Your task to perform on an android device: Empty the shopping cart on ebay.com. Image 0: 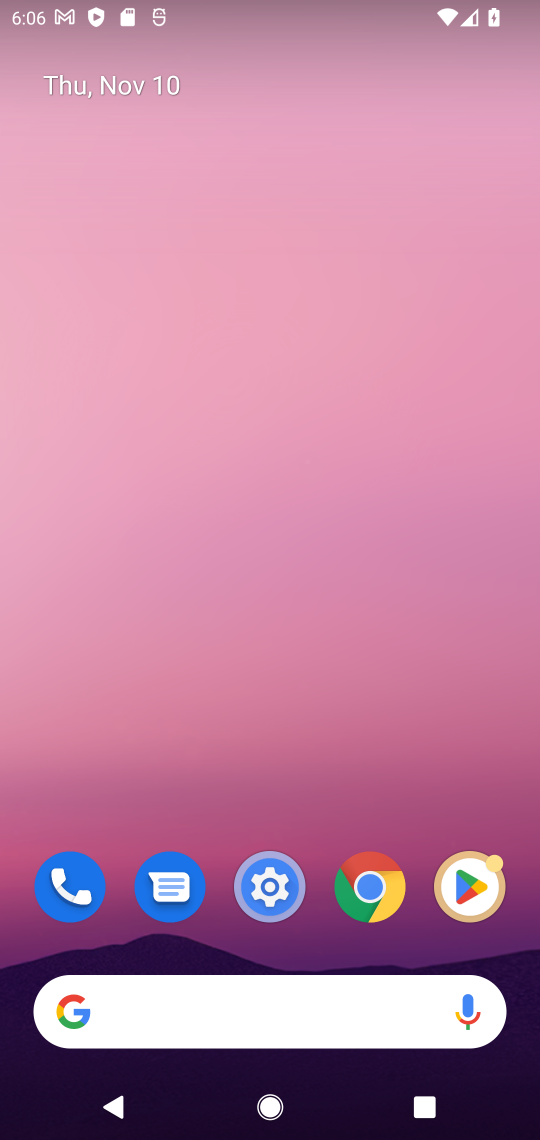
Step 0: click (162, 998)
Your task to perform on an android device: Empty the shopping cart on ebay.com. Image 1: 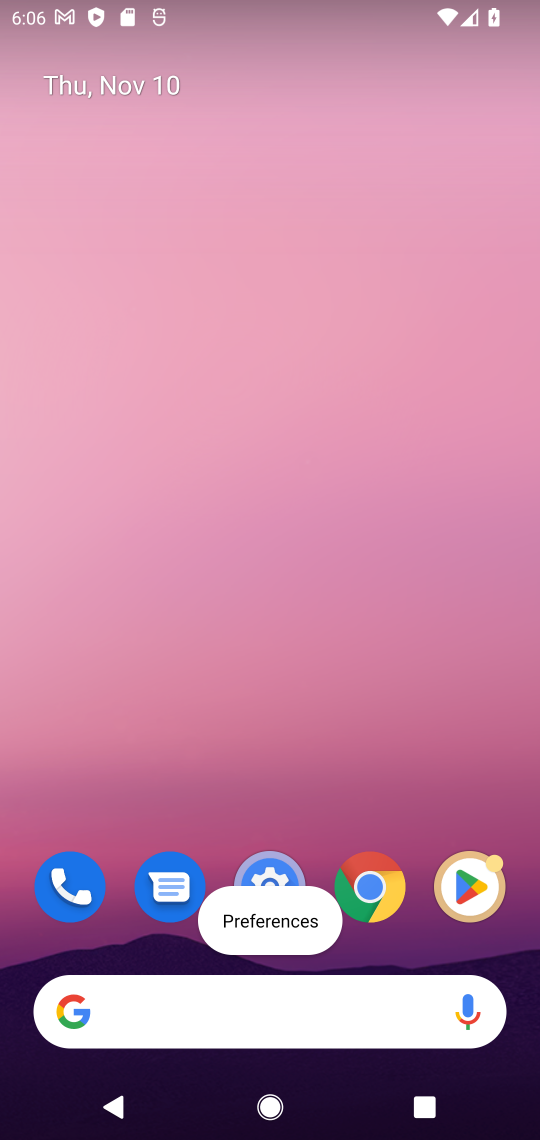
Step 1: click (85, 1012)
Your task to perform on an android device: Empty the shopping cart on ebay.com. Image 2: 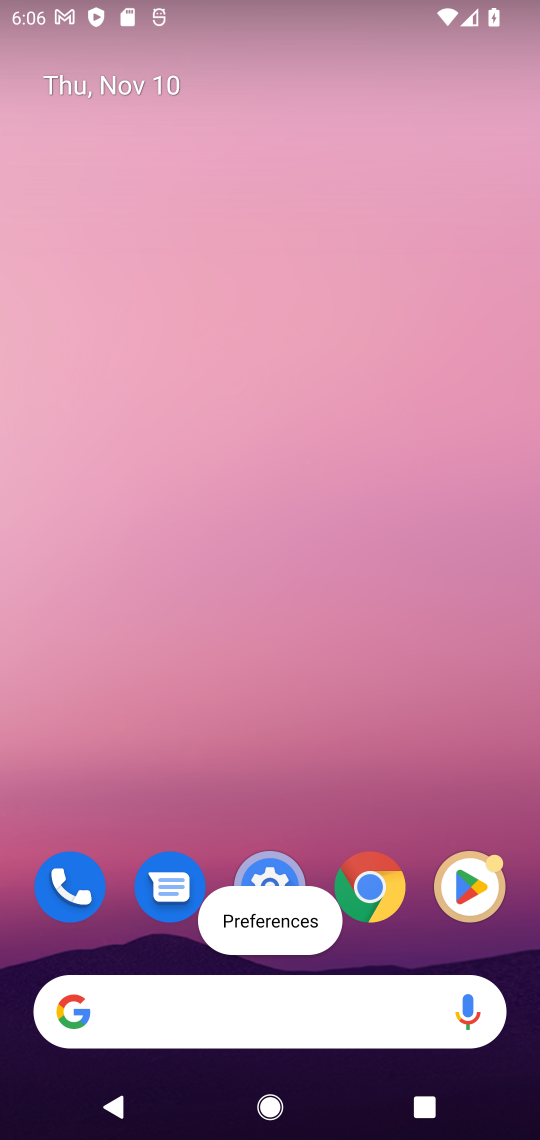
Step 2: click (77, 1007)
Your task to perform on an android device: Empty the shopping cart on ebay.com. Image 3: 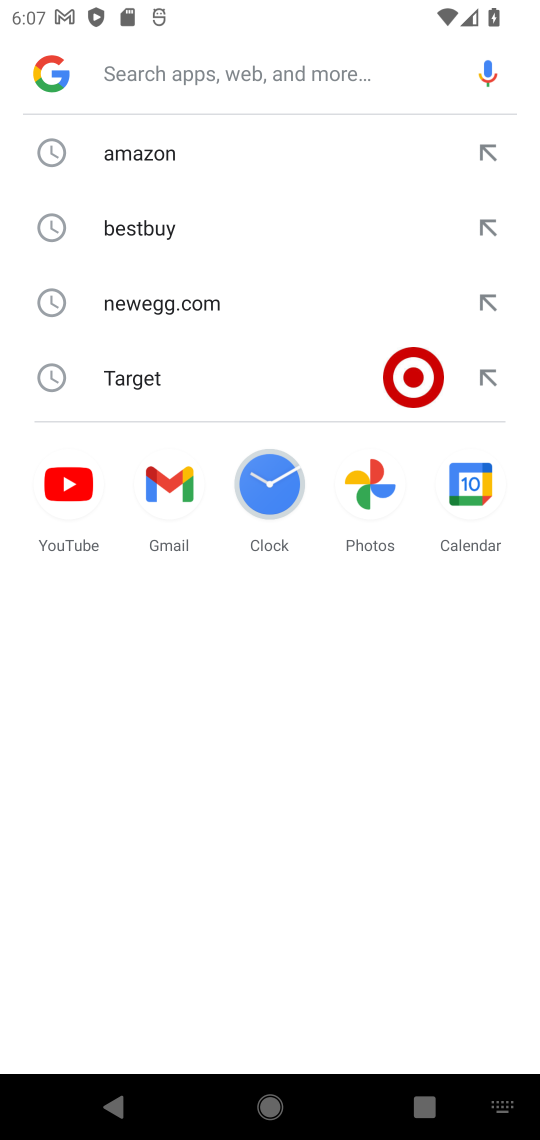
Step 3: type "ebay"
Your task to perform on an android device: Empty the shopping cart on ebay.com. Image 4: 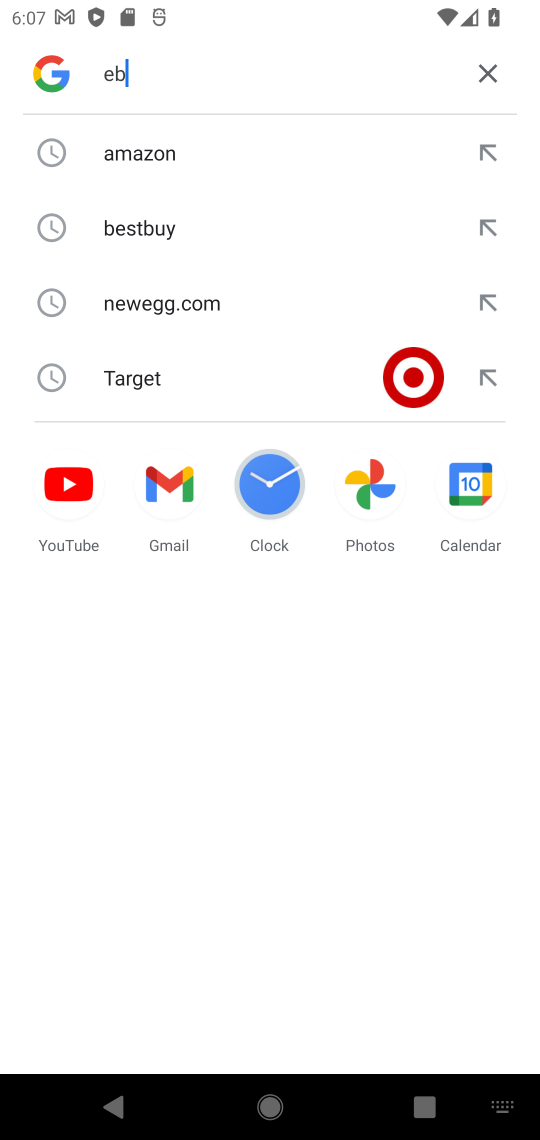
Step 4: type ""
Your task to perform on an android device: Empty the shopping cart on ebay.com. Image 5: 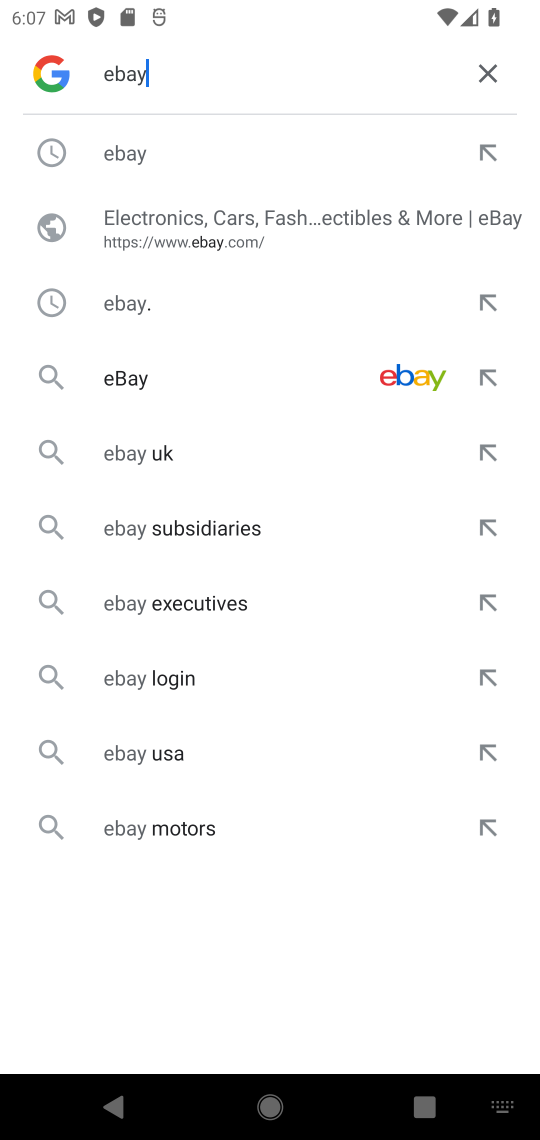
Step 5: click (117, 384)
Your task to perform on an android device: Empty the shopping cart on ebay.com. Image 6: 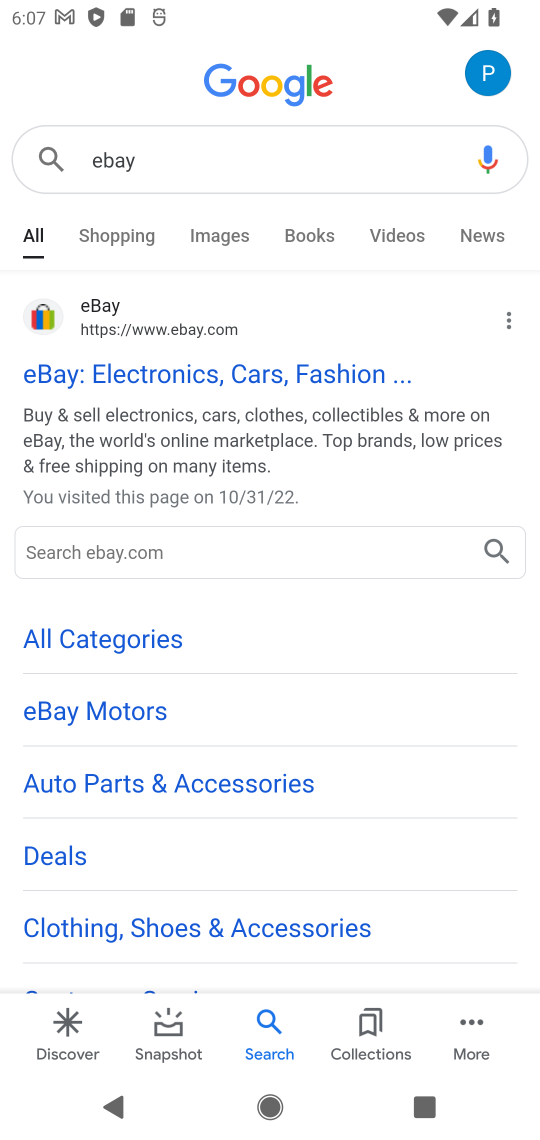
Step 6: click (87, 302)
Your task to perform on an android device: Empty the shopping cart on ebay.com. Image 7: 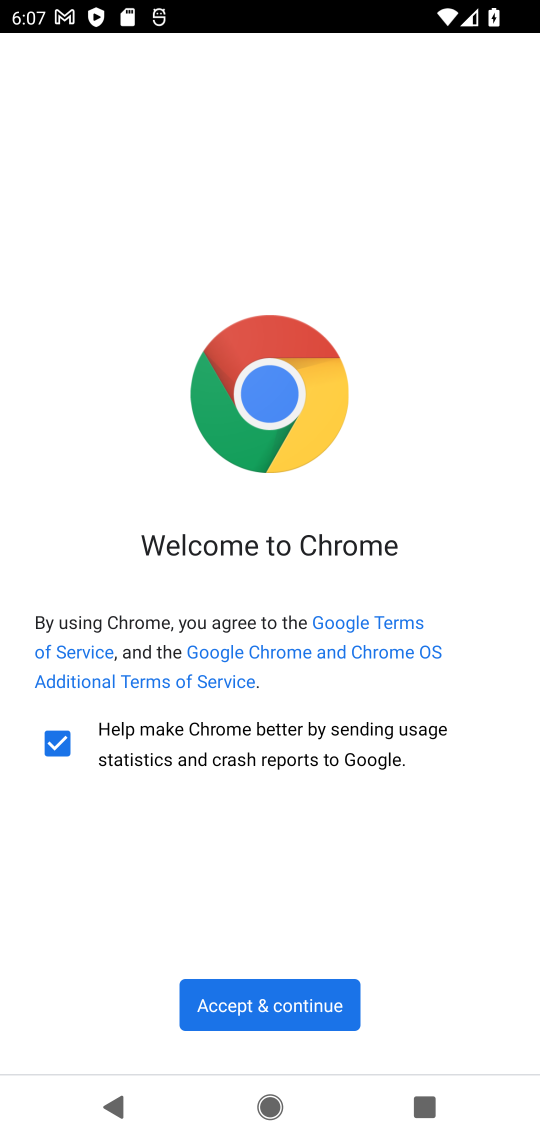
Step 7: click (270, 993)
Your task to perform on an android device: Empty the shopping cart on ebay.com. Image 8: 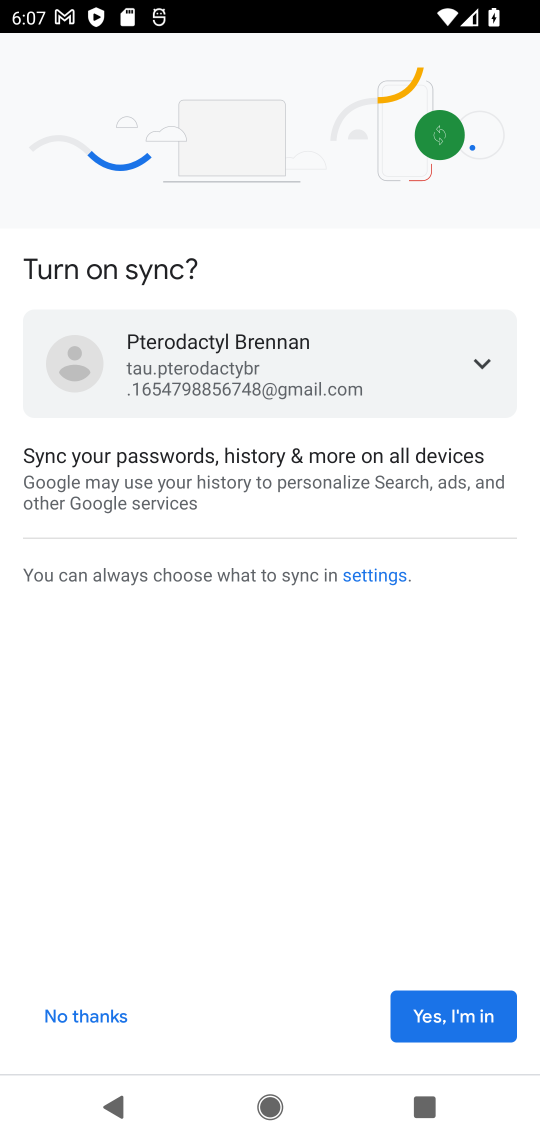
Step 8: click (418, 1020)
Your task to perform on an android device: Empty the shopping cart on ebay.com. Image 9: 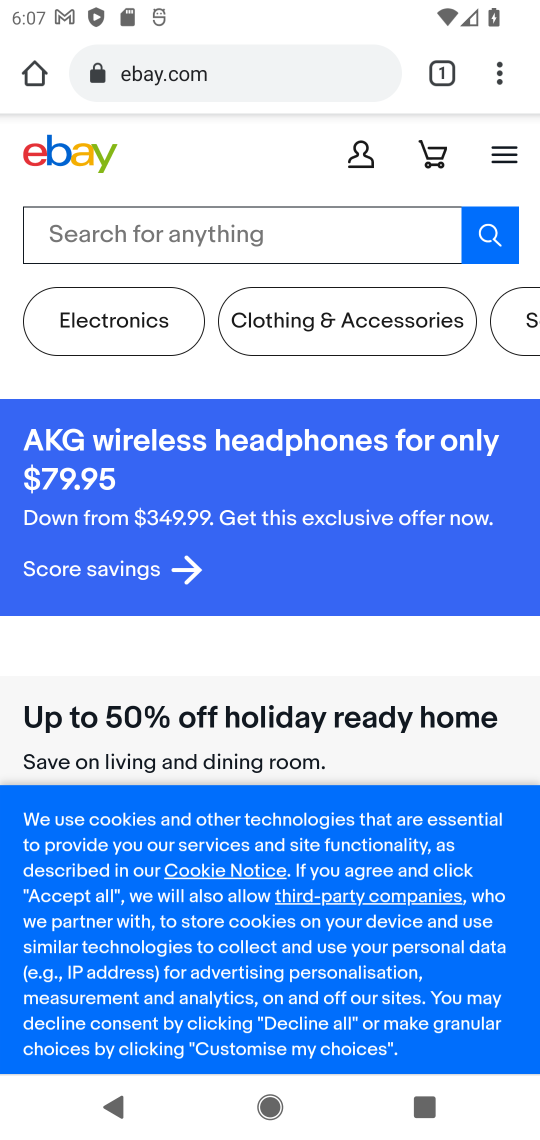
Step 9: click (435, 150)
Your task to perform on an android device: Empty the shopping cart on ebay.com. Image 10: 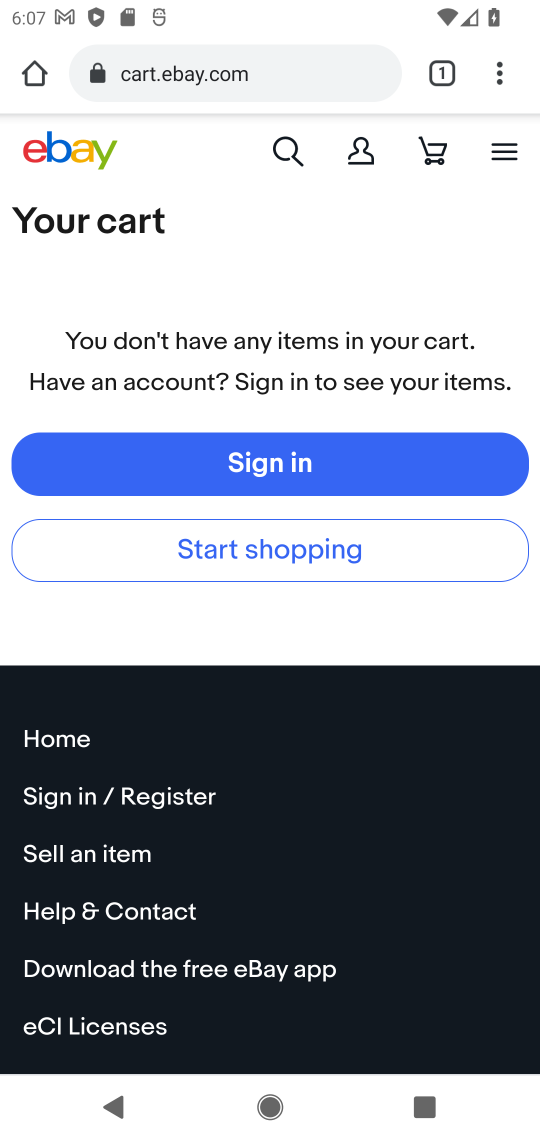
Step 10: task complete